Your task to perform on an android device: Go to Google Image 0: 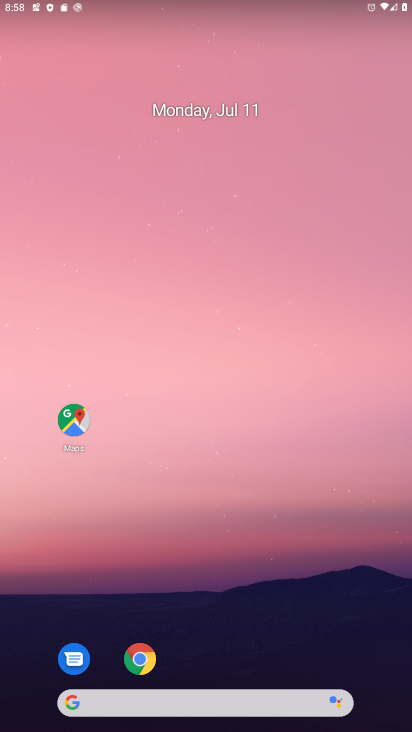
Step 0: click (71, 698)
Your task to perform on an android device: Go to Google Image 1: 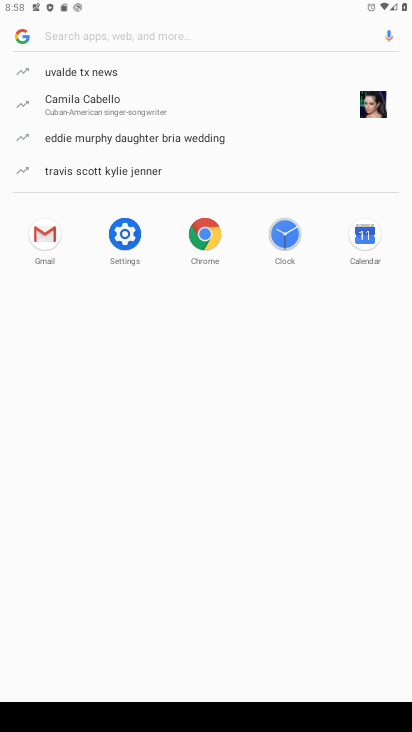
Step 1: click (27, 32)
Your task to perform on an android device: Go to Google Image 2: 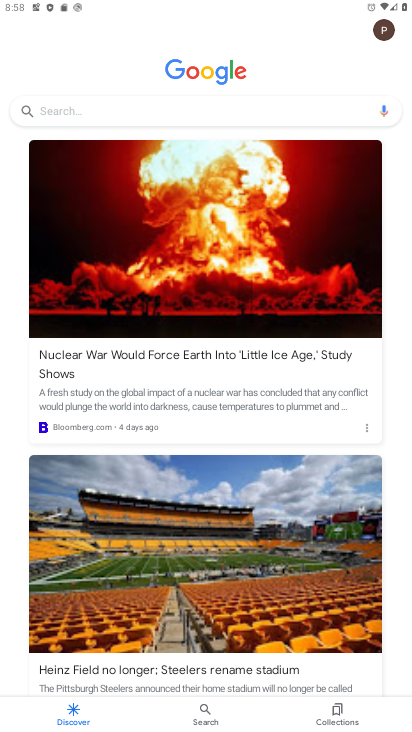
Step 2: task complete